Your task to perform on an android device: Turn off notifications for the Google Maps app Image 0: 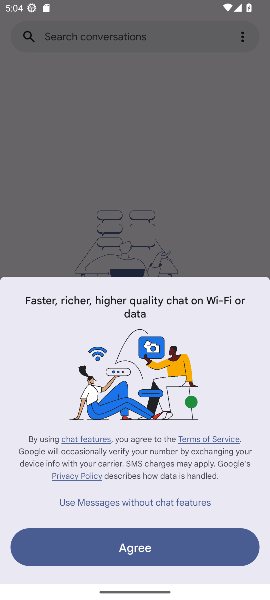
Step 0: press home button
Your task to perform on an android device: Turn off notifications for the Google Maps app Image 1: 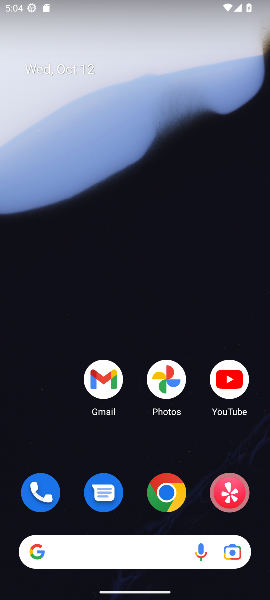
Step 1: drag from (171, 461) to (178, 47)
Your task to perform on an android device: Turn off notifications for the Google Maps app Image 2: 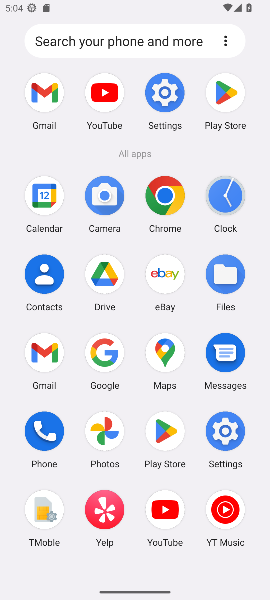
Step 2: click (159, 354)
Your task to perform on an android device: Turn off notifications for the Google Maps app Image 3: 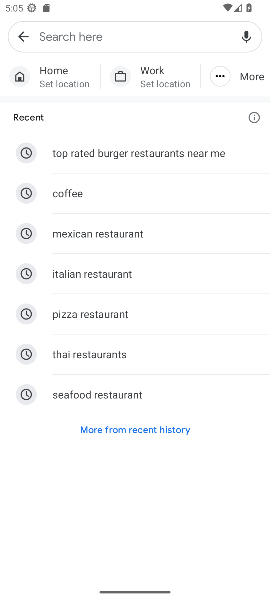
Step 3: click (27, 31)
Your task to perform on an android device: Turn off notifications for the Google Maps app Image 4: 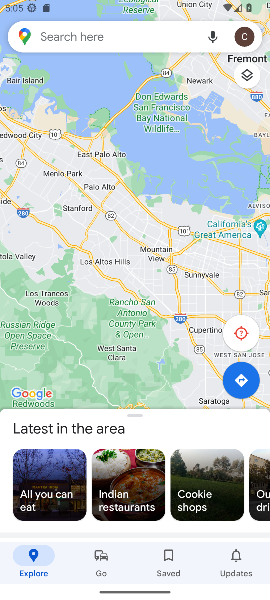
Step 4: click (242, 39)
Your task to perform on an android device: Turn off notifications for the Google Maps app Image 5: 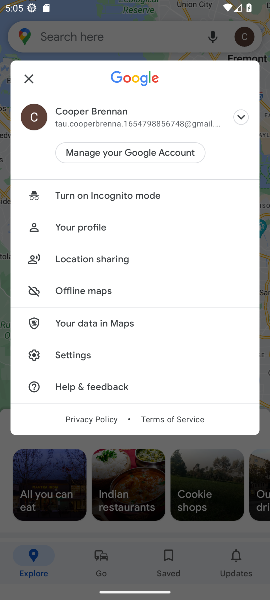
Step 5: click (71, 353)
Your task to perform on an android device: Turn off notifications for the Google Maps app Image 6: 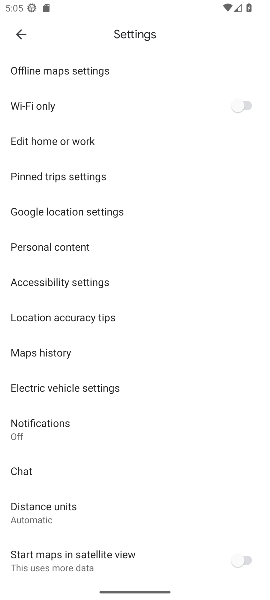
Step 6: drag from (118, 254) to (93, 410)
Your task to perform on an android device: Turn off notifications for the Google Maps app Image 7: 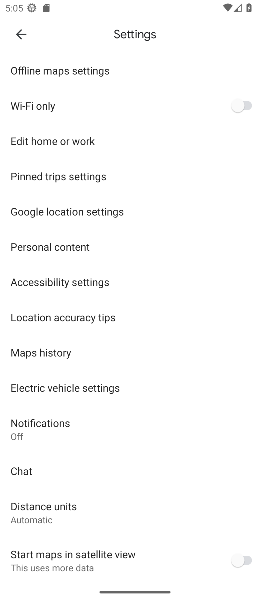
Step 7: click (50, 422)
Your task to perform on an android device: Turn off notifications for the Google Maps app Image 8: 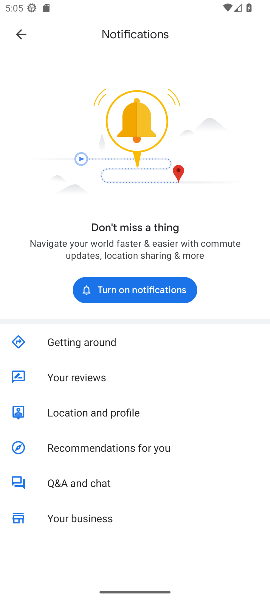
Step 8: task complete